Your task to perform on an android device: uninstall "Booking.com: Hotels and more" Image 0: 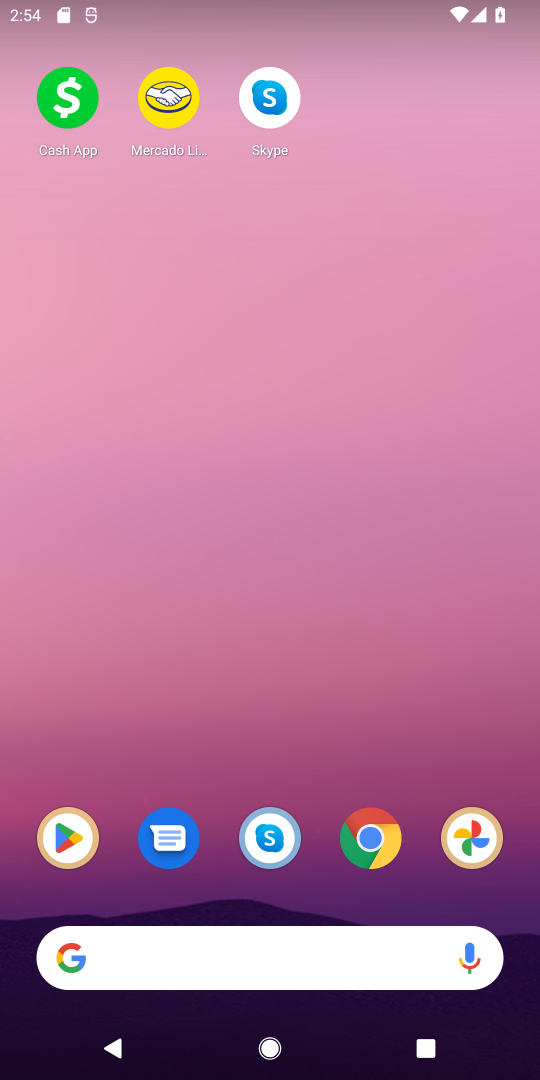
Step 0: click (80, 837)
Your task to perform on an android device: uninstall "Booking.com: Hotels and more" Image 1: 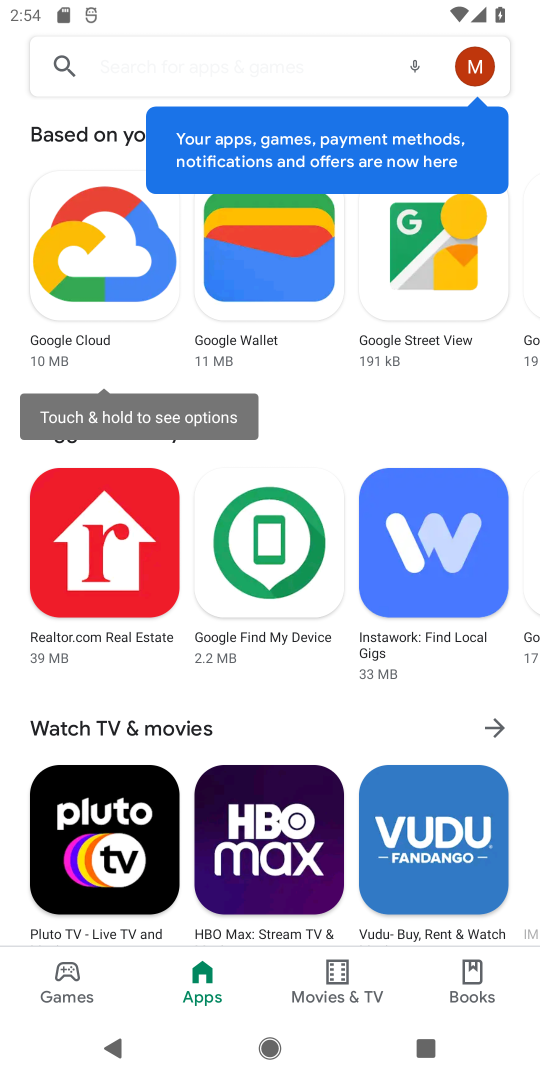
Step 1: click (314, 55)
Your task to perform on an android device: uninstall "Booking.com: Hotels and more" Image 2: 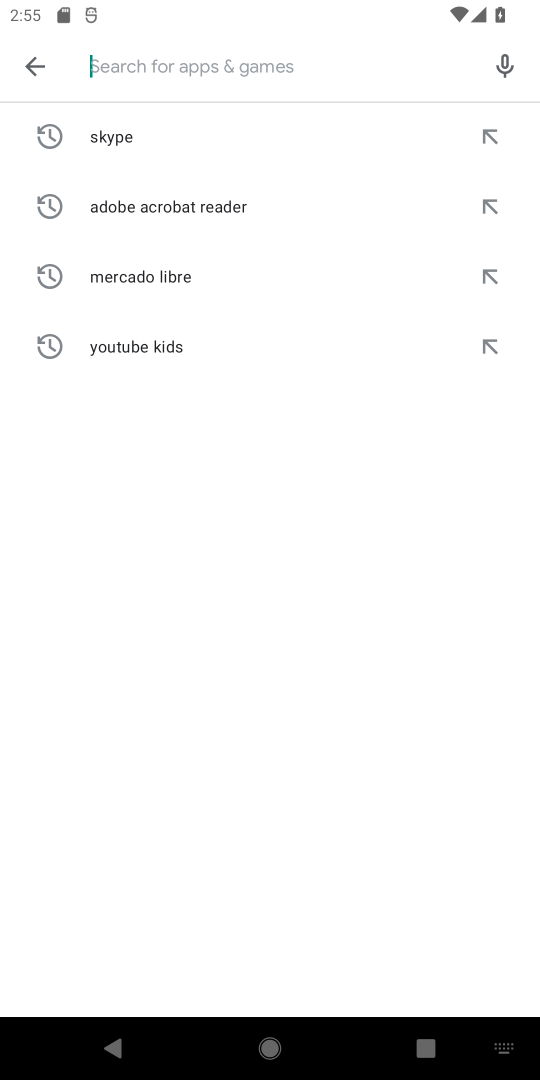
Step 2: type "Booking.com: Hotels and more"
Your task to perform on an android device: uninstall "Booking.com: Hotels and more" Image 3: 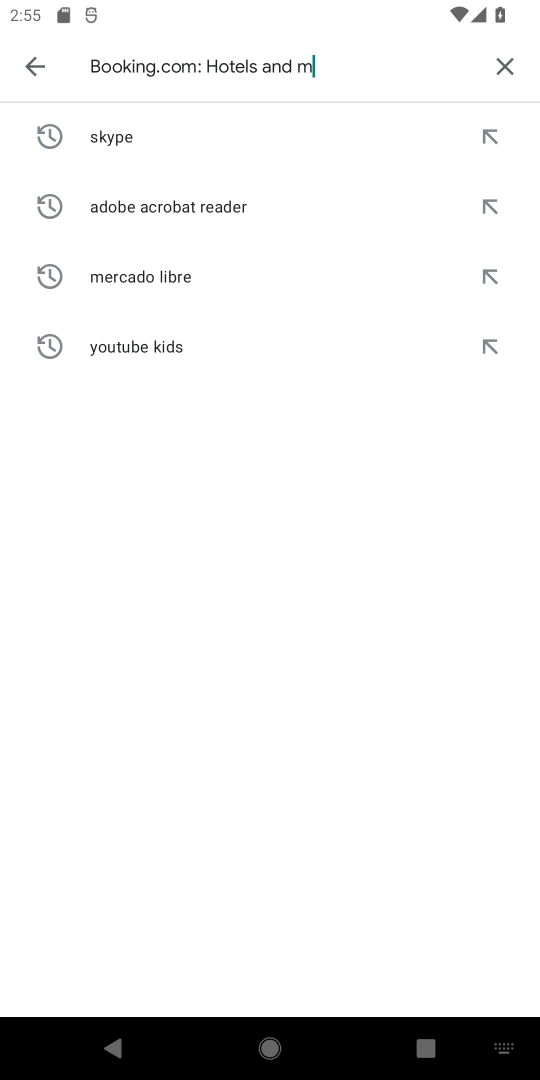
Step 3: type ""
Your task to perform on an android device: uninstall "Booking.com: Hotels and more" Image 4: 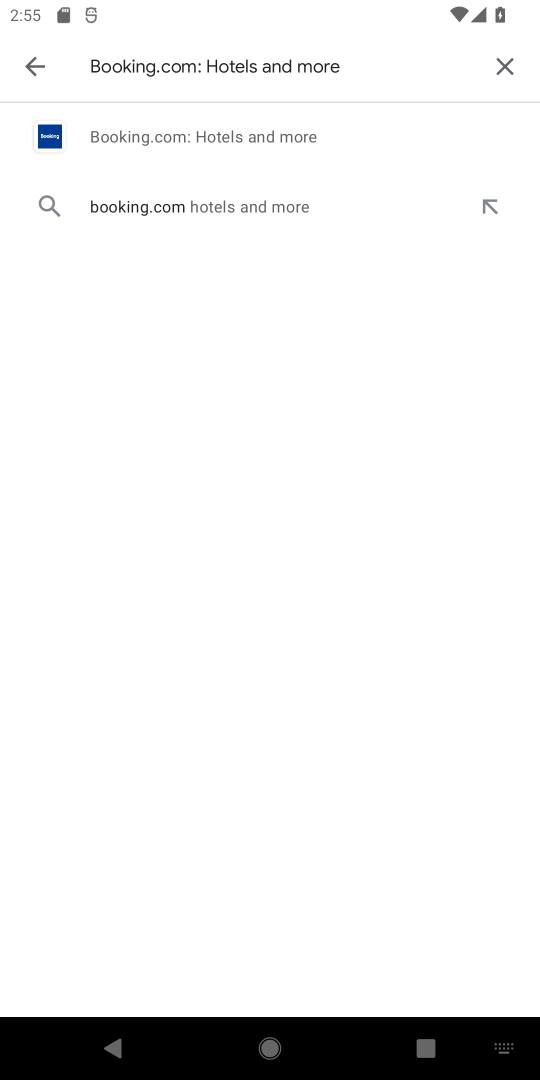
Step 4: click (220, 123)
Your task to perform on an android device: uninstall "Booking.com: Hotels and more" Image 5: 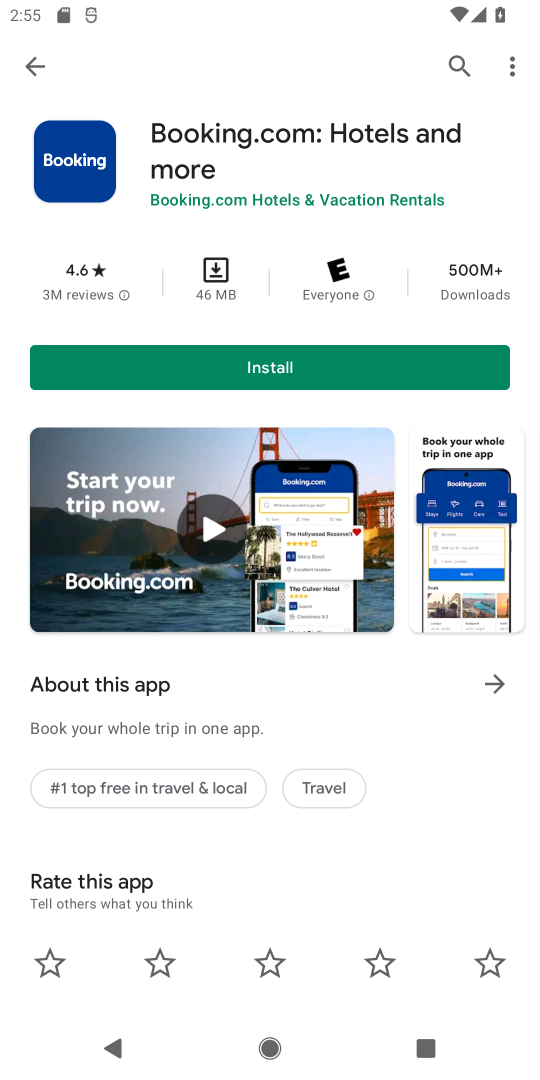
Step 5: task complete